Your task to perform on an android device: turn on translation in the chrome app Image 0: 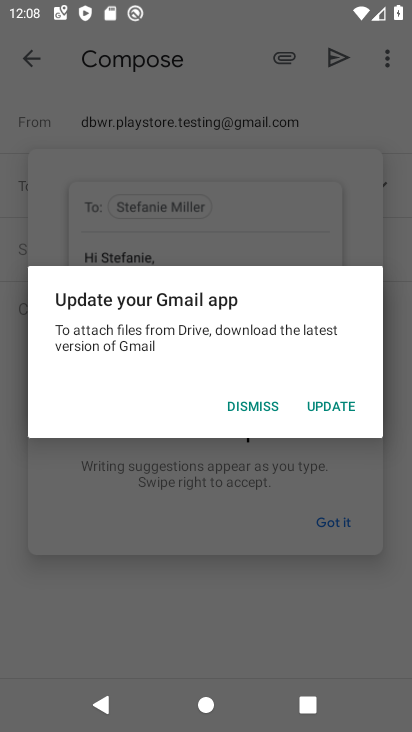
Step 0: click (244, 415)
Your task to perform on an android device: turn on translation in the chrome app Image 1: 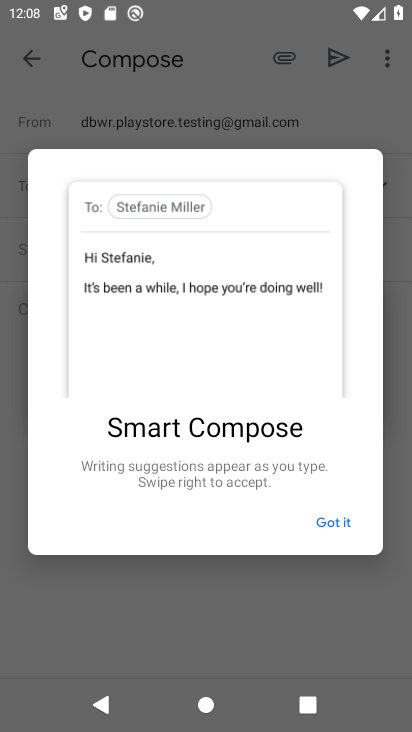
Step 1: click (253, 404)
Your task to perform on an android device: turn on translation in the chrome app Image 2: 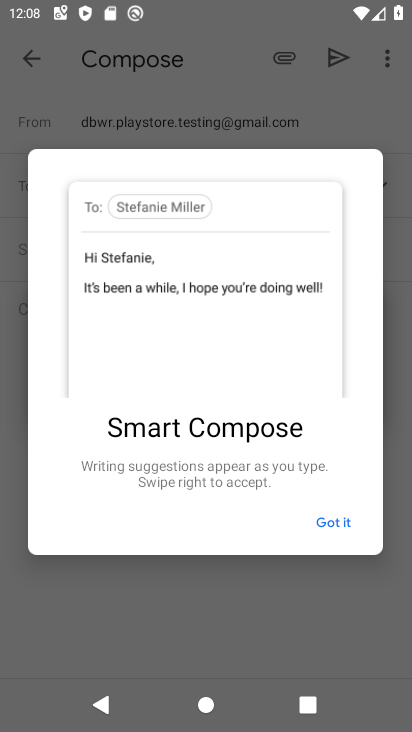
Step 2: click (253, 404)
Your task to perform on an android device: turn on translation in the chrome app Image 3: 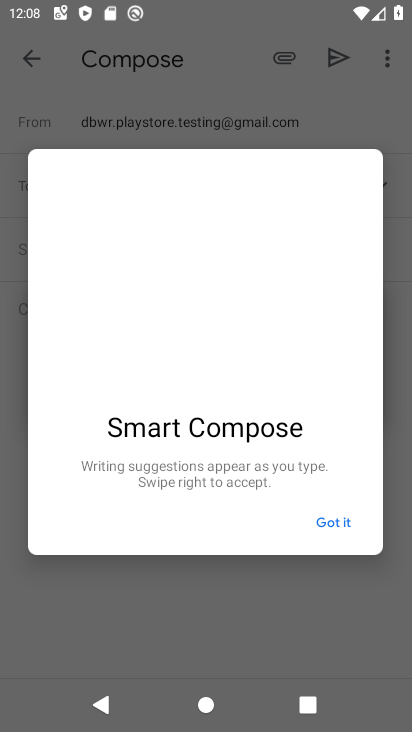
Step 3: click (341, 511)
Your task to perform on an android device: turn on translation in the chrome app Image 4: 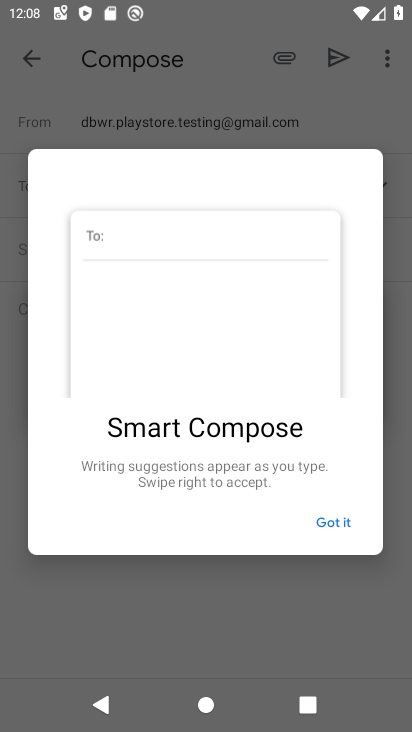
Step 4: click (341, 513)
Your task to perform on an android device: turn on translation in the chrome app Image 5: 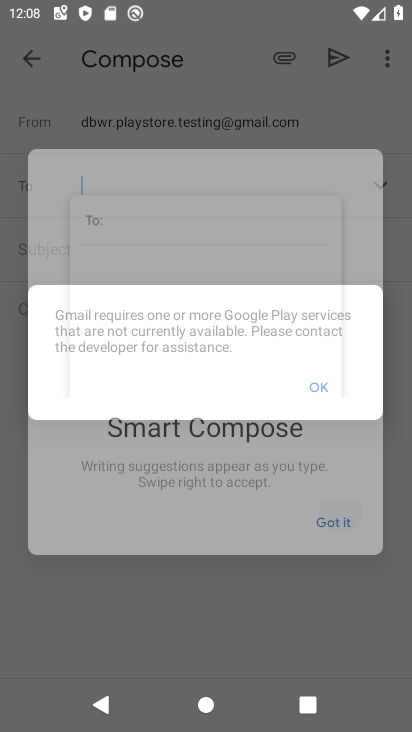
Step 5: click (341, 513)
Your task to perform on an android device: turn on translation in the chrome app Image 6: 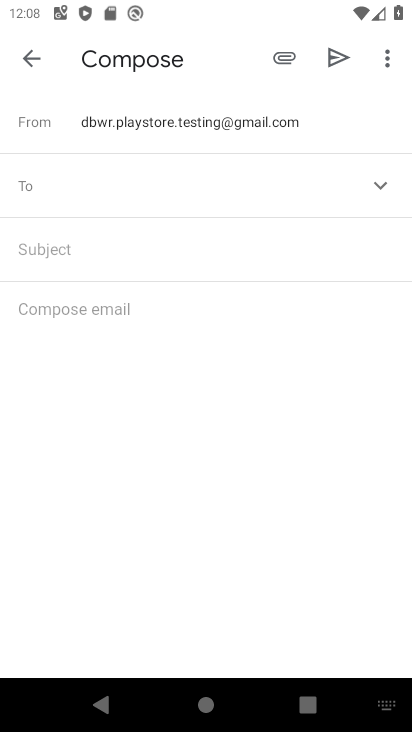
Step 6: click (24, 59)
Your task to perform on an android device: turn on translation in the chrome app Image 7: 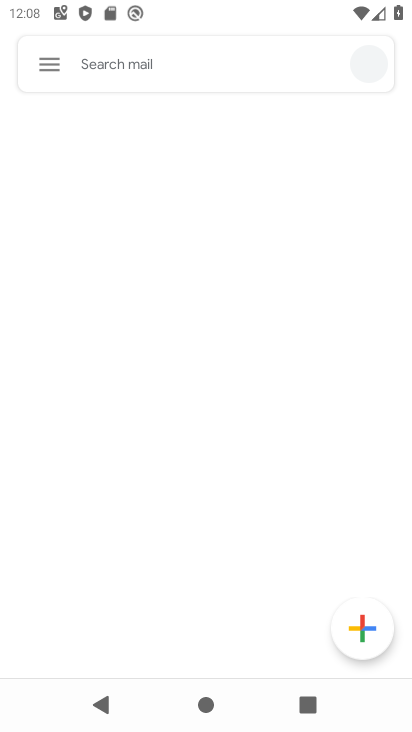
Step 7: press back button
Your task to perform on an android device: turn on translation in the chrome app Image 8: 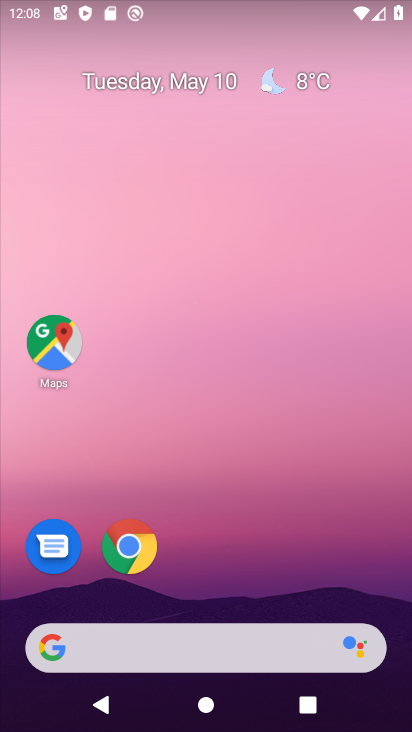
Step 8: drag from (343, 587) to (108, 98)
Your task to perform on an android device: turn on translation in the chrome app Image 9: 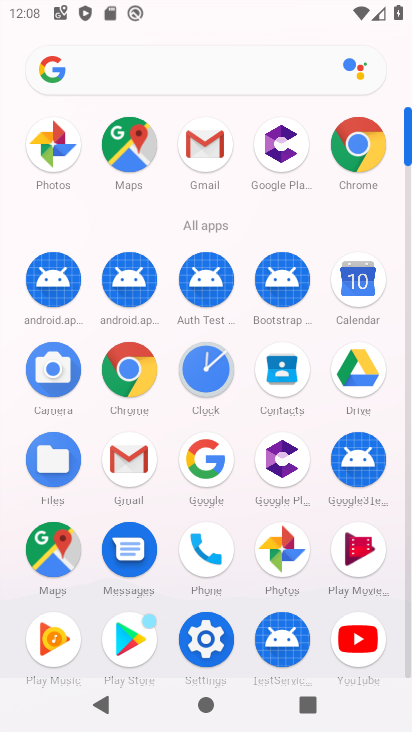
Step 9: click (358, 139)
Your task to perform on an android device: turn on translation in the chrome app Image 10: 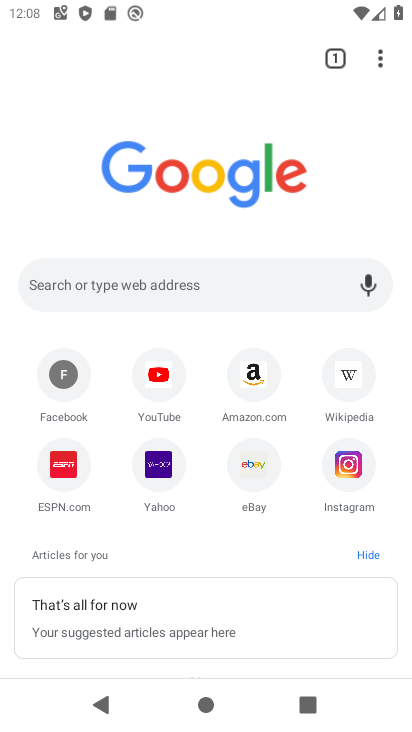
Step 10: drag from (376, 50) to (154, 493)
Your task to perform on an android device: turn on translation in the chrome app Image 11: 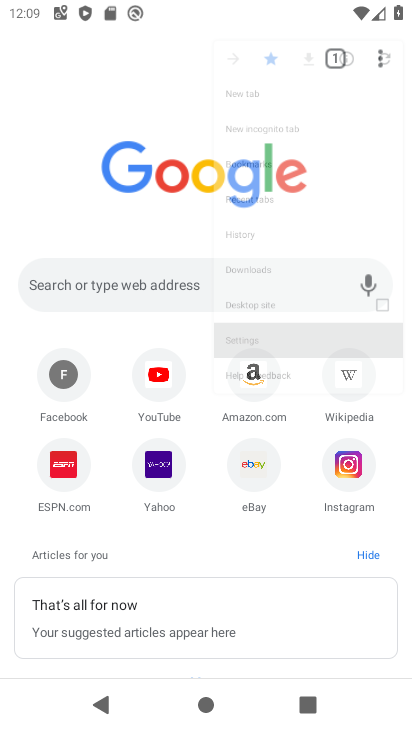
Step 11: click (157, 492)
Your task to perform on an android device: turn on translation in the chrome app Image 12: 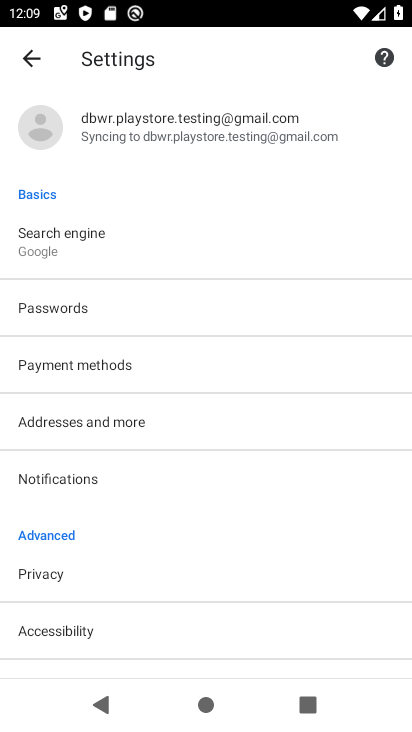
Step 12: drag from (106, 549) to (125, 179)
Your task to perform on an android device: turn on translation in the chrome app Image 13: 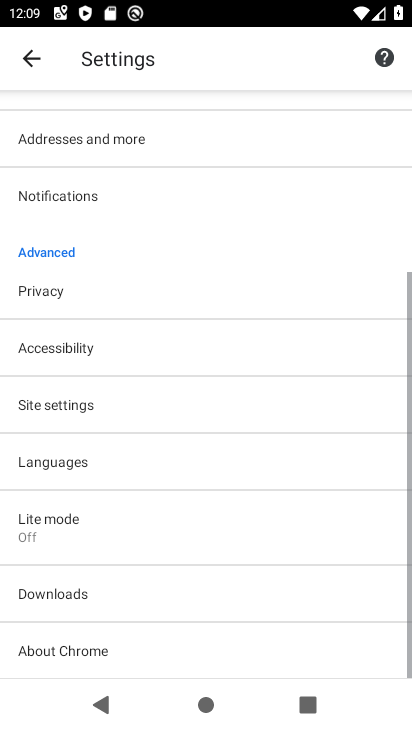
Step 13: drag from (185, 426) to (128, 131)
Your task to perform on an android device: turn on translation in the chrome app Image 14: 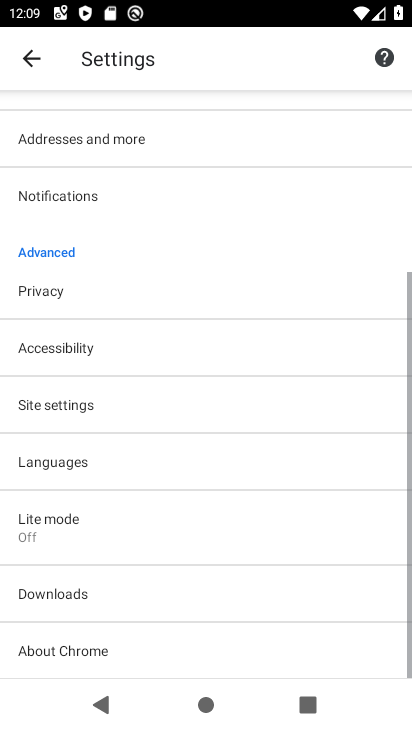
Step 14: click (50, 459)
Your task to perform on an android device: turn on translation in the chrome app Image 15: 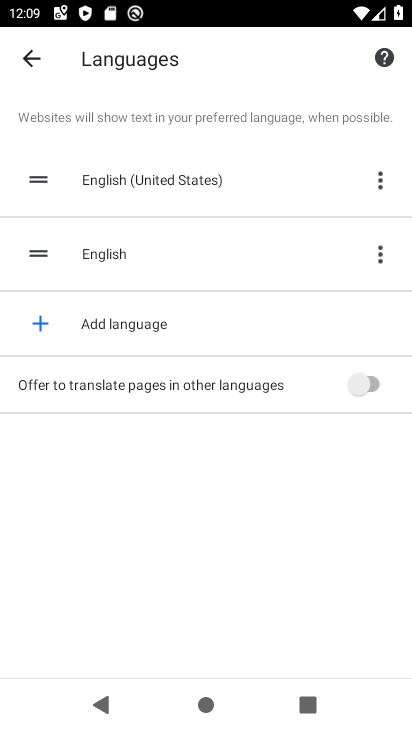
Step 15: click (363, 391)
Your task to perform on an android device: turn on translation in the chrome app Image 16: 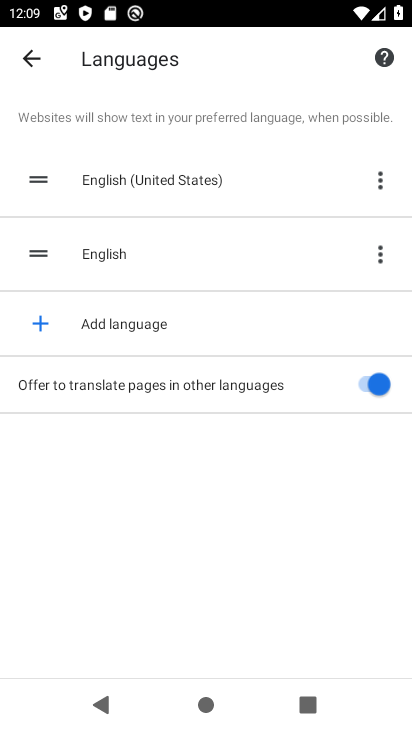
Step 16: task complete